Your task to perform on an android device: install app "Pandora - Music & Podcasts" Image 0: 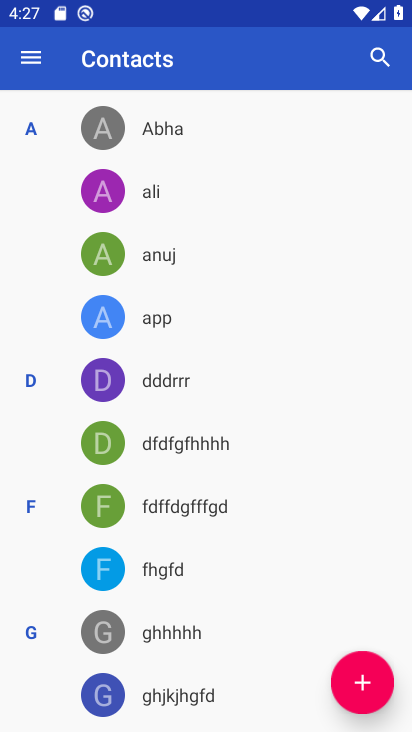
Step 0: press home button
Your task to perform on an android device: install app "Pandora - Music & Podcasts" Image 1: 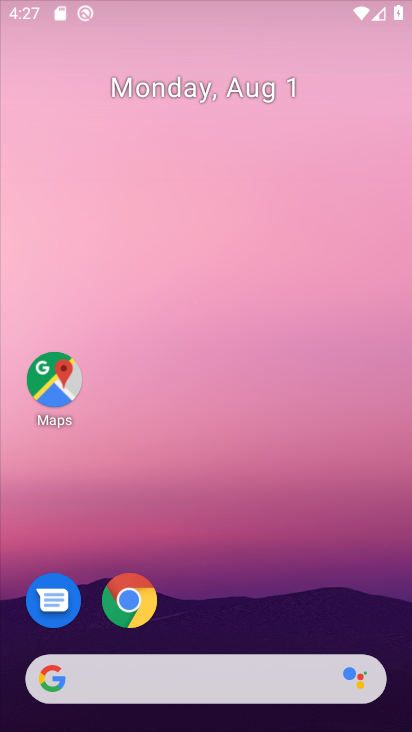
Step 1: drag from (280, 566) to (127, 3)
Your task to perform on an android device: install app "Pandora - Music & Podcasts" Image 2: 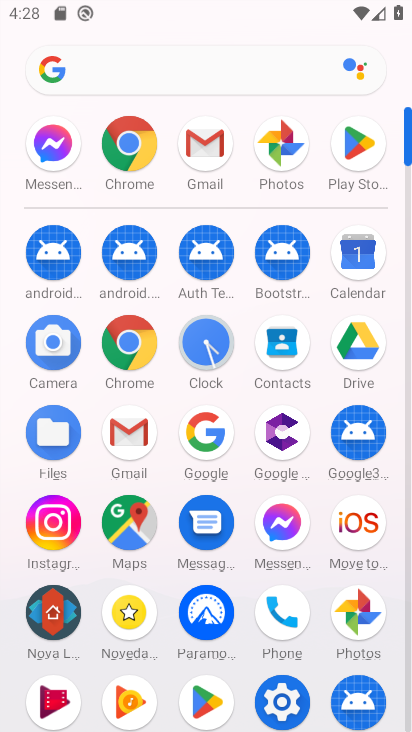
Step 2: click (356, 131)
Your task to perform on an android device: install app "Pandora - Music & Podcasts" Image 3: 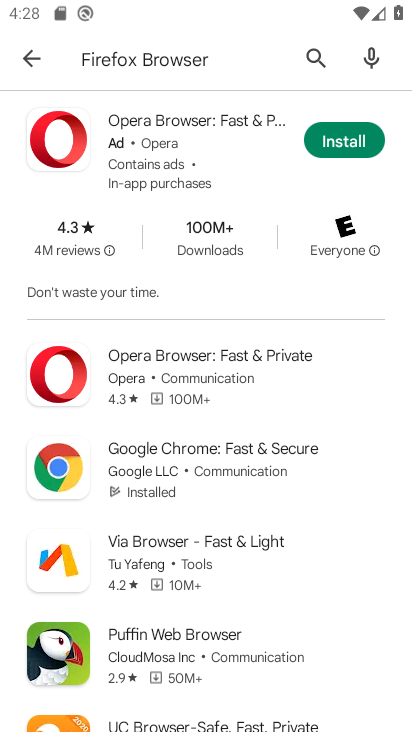
Step 3: click (194, 71)
Your task to perform on an android device: install app "Pandora - Music & Podcasts" Image 4: 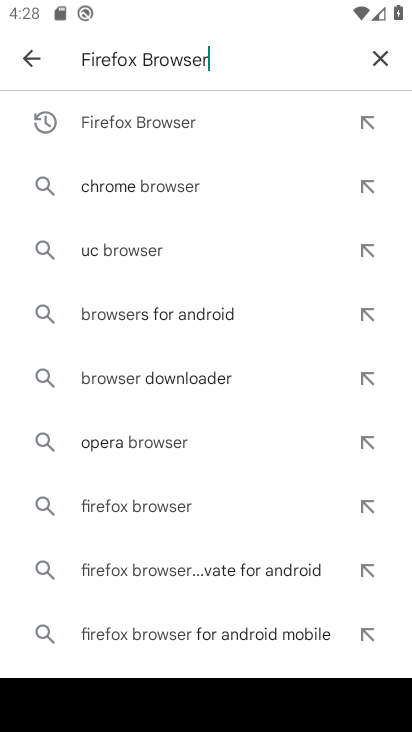
Step 4: click (391, 56)
Your task to perform on an android device: install app "Pandora - Music & Podcasts" Image 5: 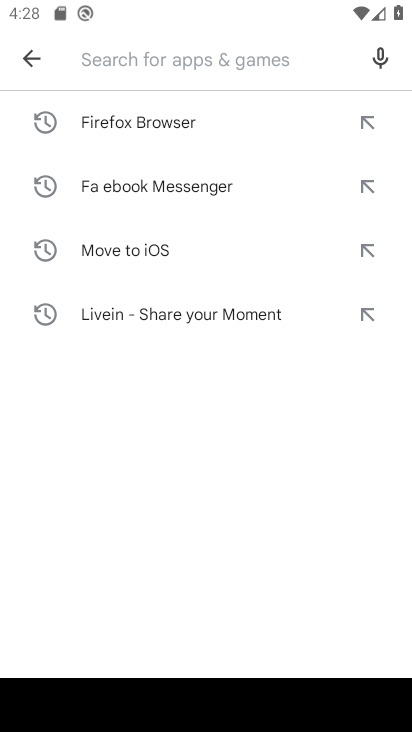
Step 5: type "Pandora - Music & Podcasts"
Your task to perform on an android device: install app "Pandora - Music & Podcasts" Image 6: 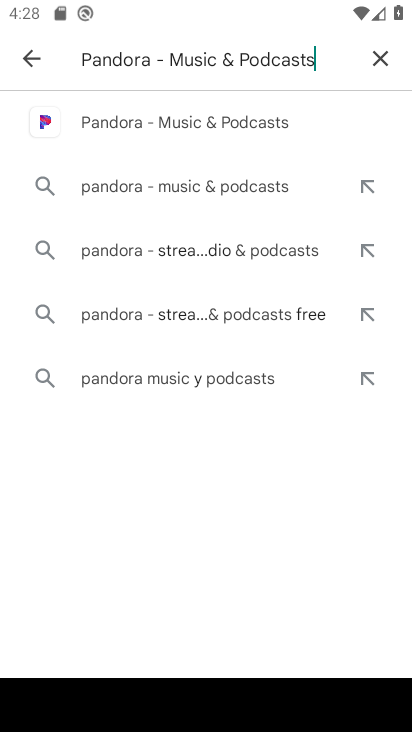
Step 6: press enter
Your task to perform on an android device: install app "Pandora - Music & Podcasts" Image 7: 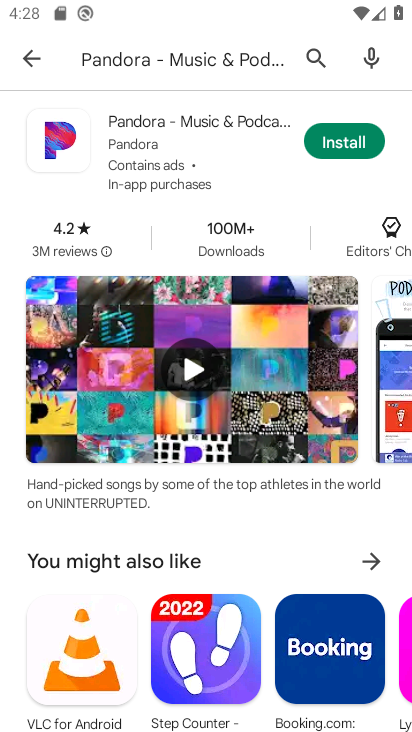
Step 7: click (324, 131)
Your task to perform on an android device: install app "Pandora - Music & Podcasts" Image 8: 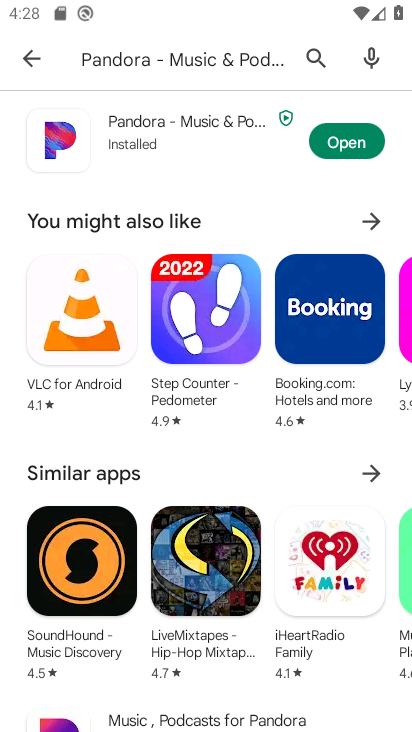
Step 8: task complete